Your task to perform on an android device: turn on sleep mode Image 0: 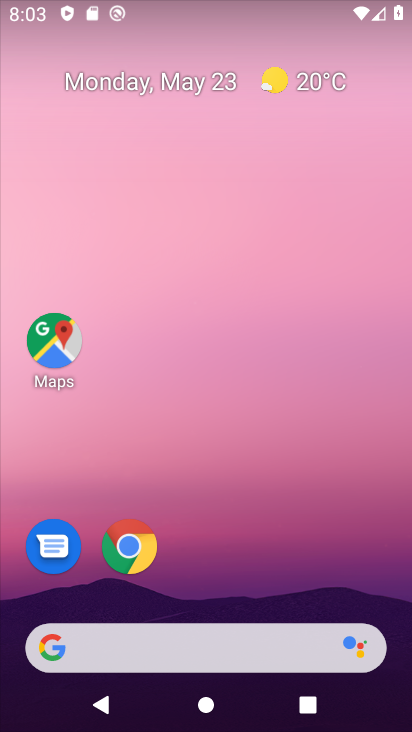
Step 0: drag from (291, 430) to (230, 20)
Your task to perform on an android device: turn on sleep mode Image 1: 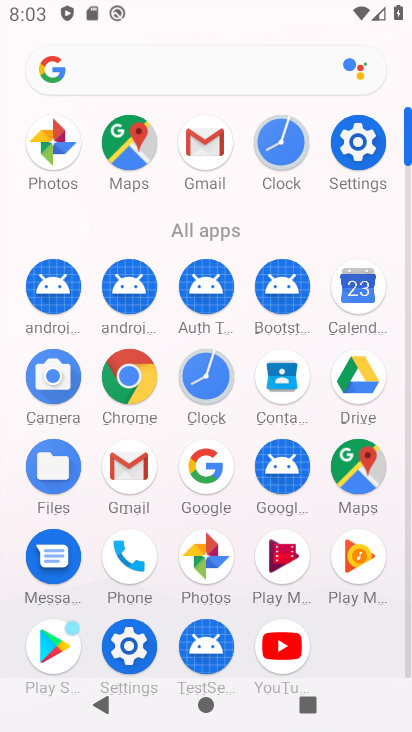
Step 1: drag from (4, 522) to (24, 187)
Your task to perform on an android device: turn on sleep mode Image 2: 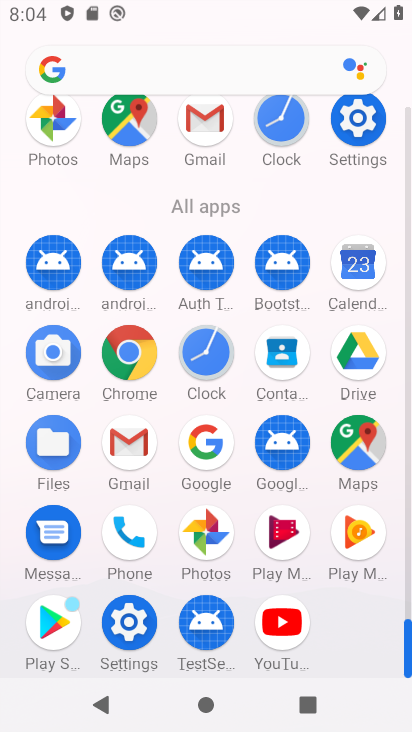
Step 2: click (358, 114)
Your task to perform on an android device: turn on sleep mode Image 3: 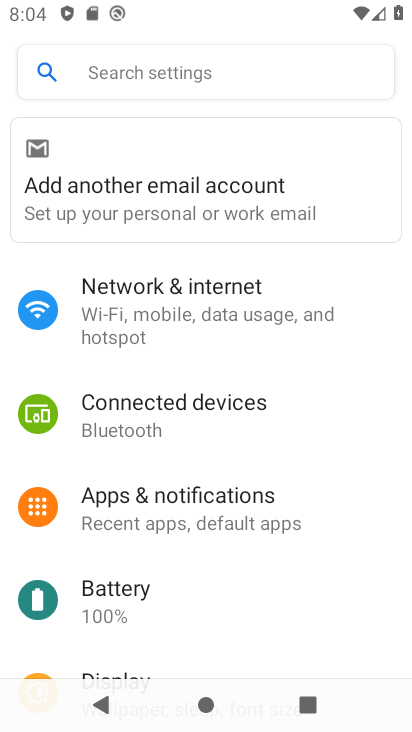
Step 3: drag from (236, 560) to (247, 217)
Your task to perform on an android device: turn on sleep mode Image 4: 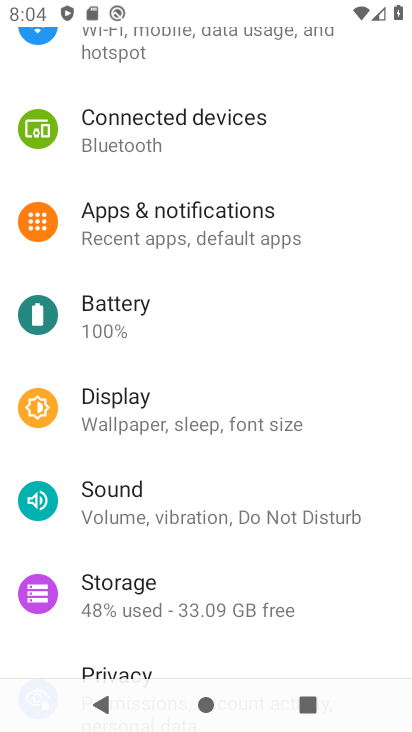
Step 4: click (193, 422)
Your task to perform on an android device: turn on sleep mode Image 5: 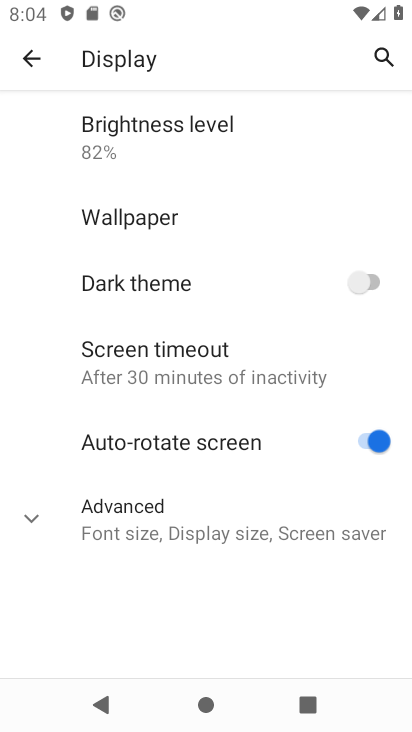
Step 5: click (48, 520)
Your task to perform on an android device: turn on sleep mode Image 6: 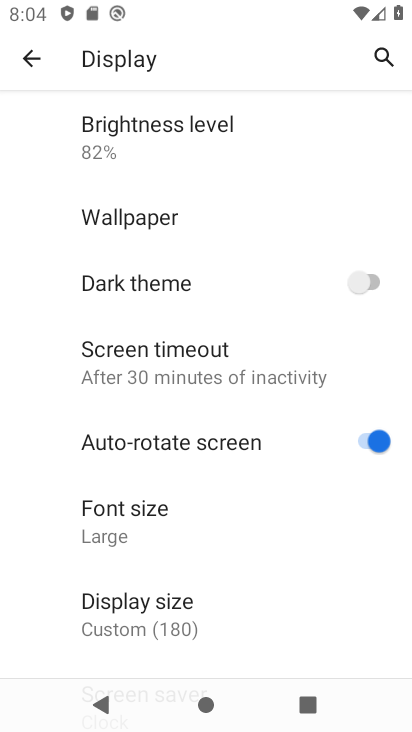
Step 6: task complete